Your task to perform on an android device: turn on showing notifications on the lock screen Image 0: 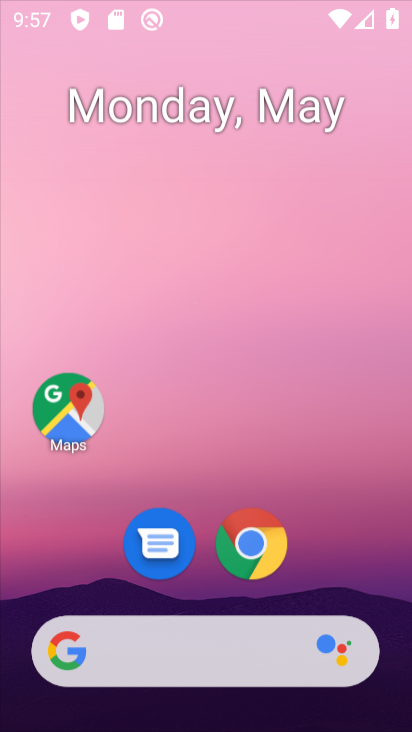
Step 0: click (141, 228)
Your task to perform on an android device: turn on showing notifications on the lock screen Image 1: 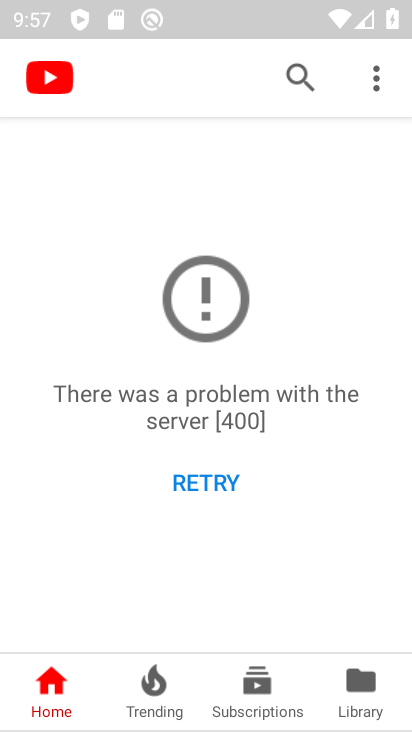
Step 1: press back button
Your task to perform on an android device: turn on showing notifications on the lock screen Image 2: 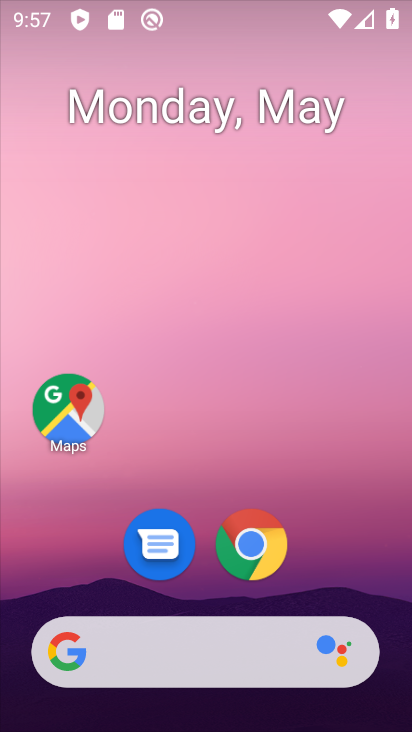
Step 2: drag from (300, 589) to (177, 158)
Your task to perform on an android device: turn on showing notifications on the lock screen Image 3: 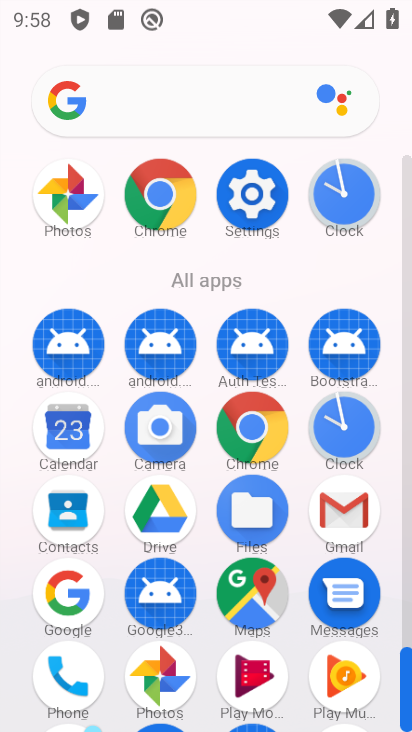
Step 3: click (338, 423)
Your task to perform on an android device: turn on showing notifications on the lock screen Image 4: 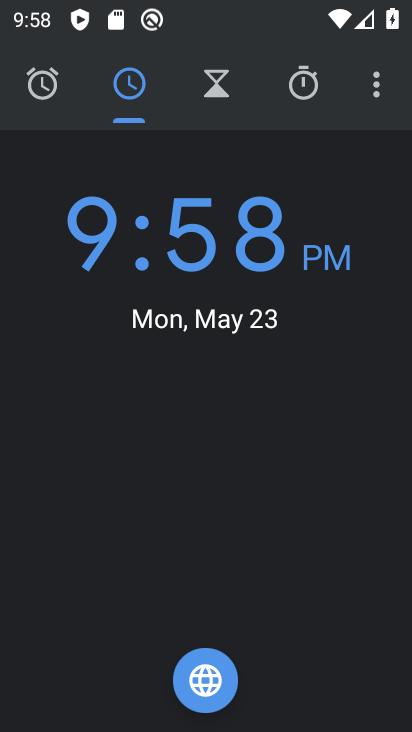
Step 4: press back button
Your task to perform on an android device: turn on showing notifications on the lock screen Image 5: 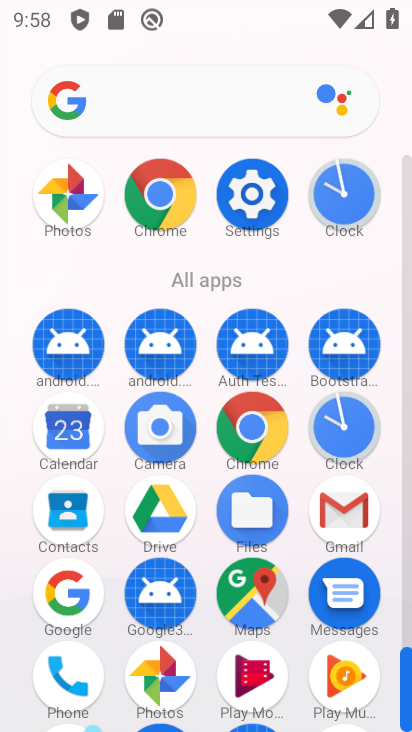
Step 5: click (342, 419)
Your task to perform on an android device: turn on showing notifications on the lock screen Image 6: 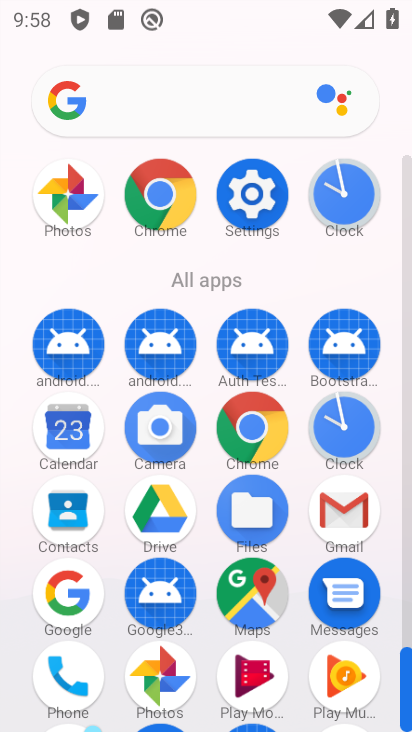
Step 6: click (342, 419)
Your task to perform on an android device: turn on showing notifications on the lock screen Image 7: 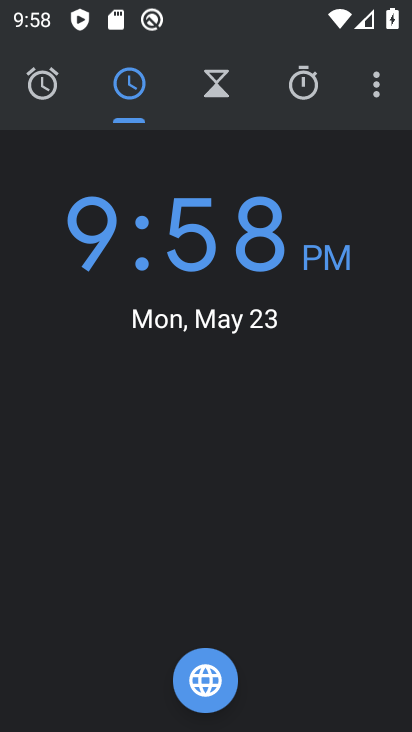
Step 7: press home button
Your task to perform on an android device: turn on showing notifications on the lock screen Image 8: 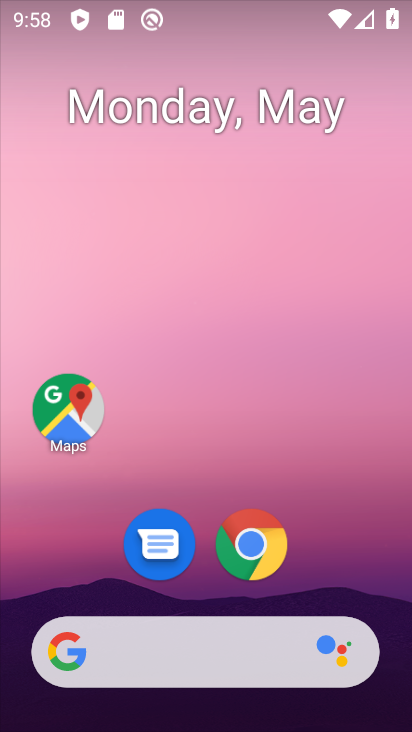
Step 8: drag from (185, 492) to (99, 156)
Your task to perform on an android device: turn on showing notifications on the lock screen Image 9: 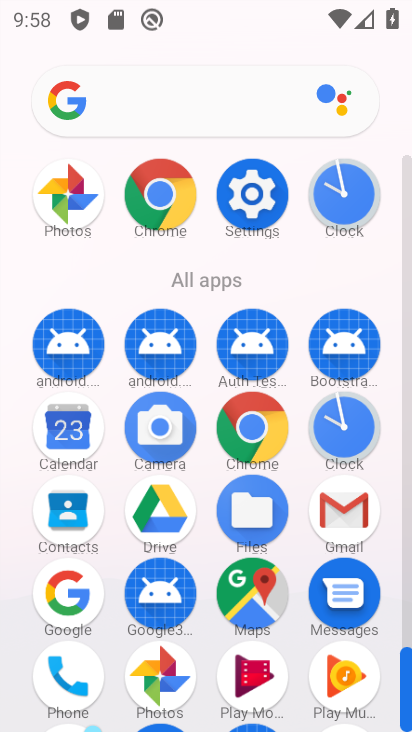
Step 9: click (243, 182)
Your task to perform on an android device: turn on showing notifications on the lock screen Image 10: 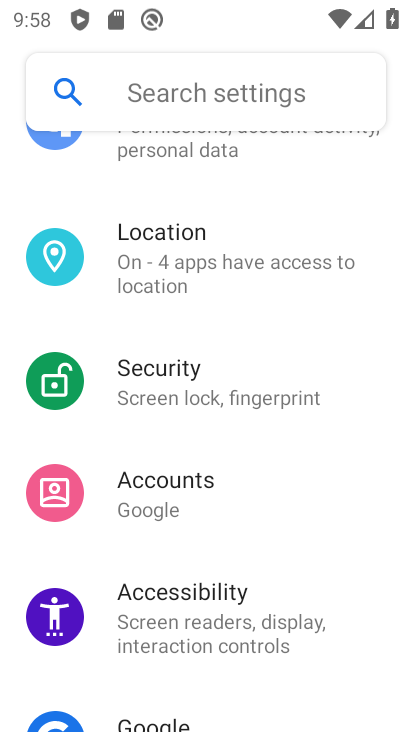
Step 10: drag from (167, 276) to (174, 495)
Your task to perform on an android device: turn on showing notifications on the lock screen Image 11: 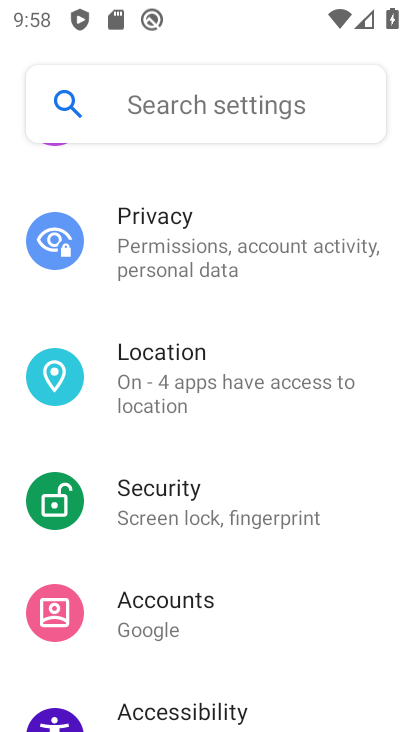
Step 11: drag from (142, 259) to (163, 500)
Your task to perform on an android device: turn on showing notifications on the lock screen Image 12: 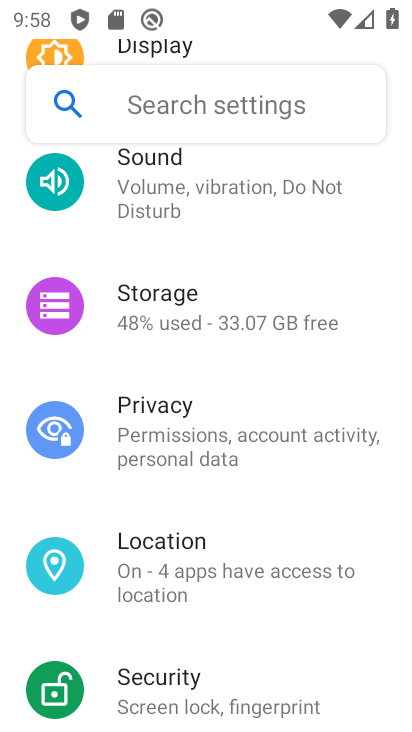
Step 12: drag from (162, 224) to (203, 503)
Your task to perform on an android device: turn on showing notifications on the lock screen Image 13: 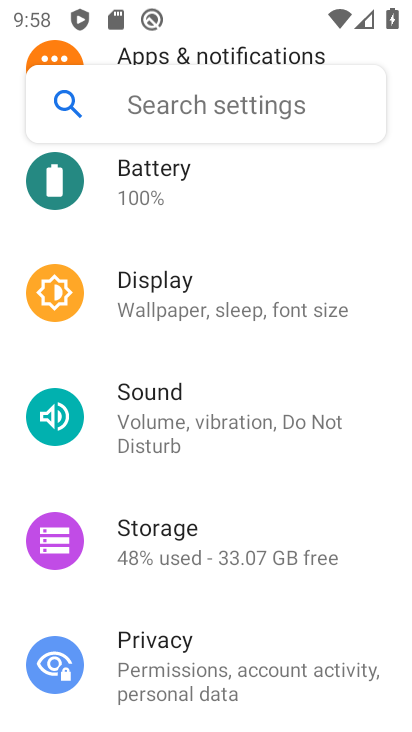
Step 13: drag from (205, 293) to (211, 351)
Your task to perform on an android device: turn on showing notifications on the lock screen Image 14: 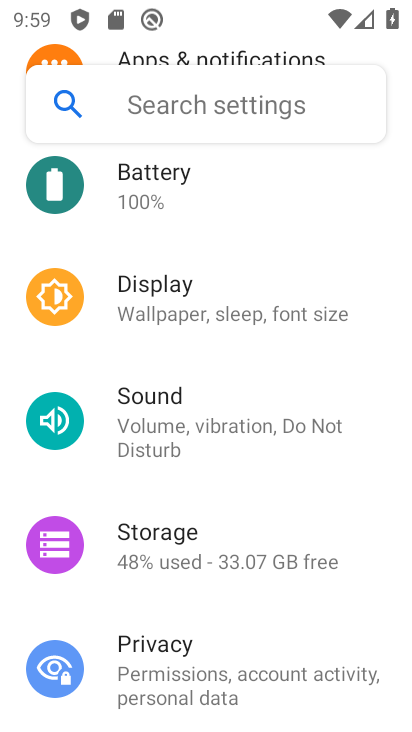
Step 14: drag from (171, 241) to (197, 429)
Your task to perform on an android device: turn on showing notifications on the lock screen Image 15: 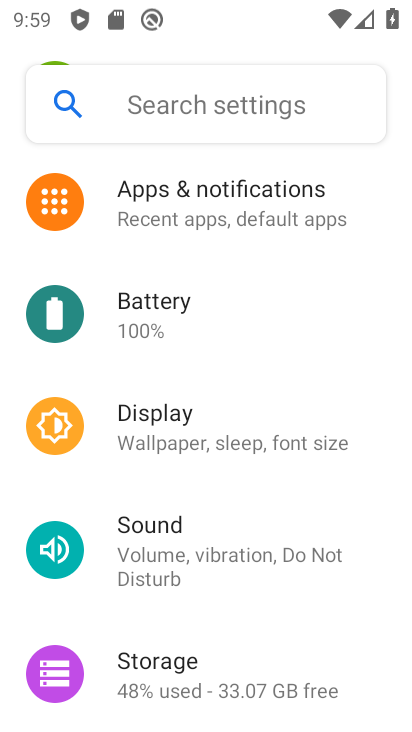
Step 15: click (175, 220)
Your task to perform on an android device: turn on showing notifications on the lock screen Image 16: 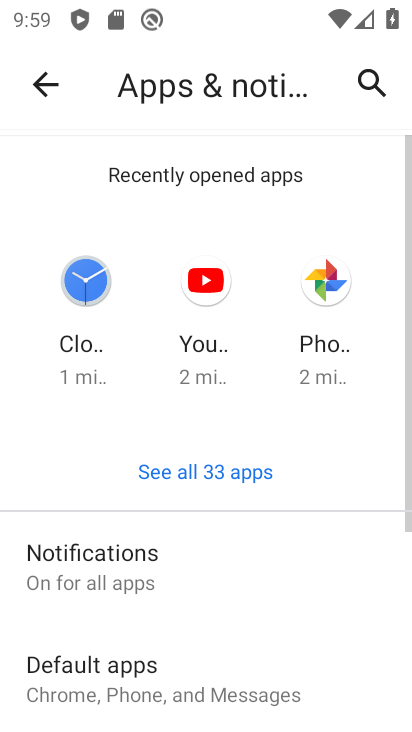
Step 16: click (75, 580)
Your task to perform on an android device: turn on showing notifications on the lock screen Image 17: 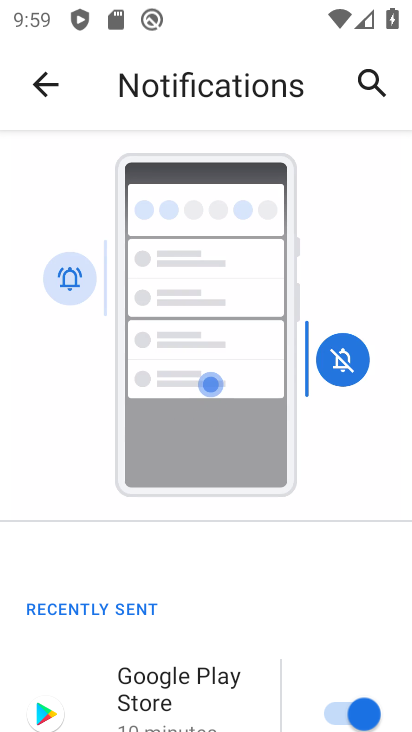
Step 17: drag from (234, 554) to (199, 147)
Your task to perform on an android device: turn on showing notifications on the lock screen Image 18: 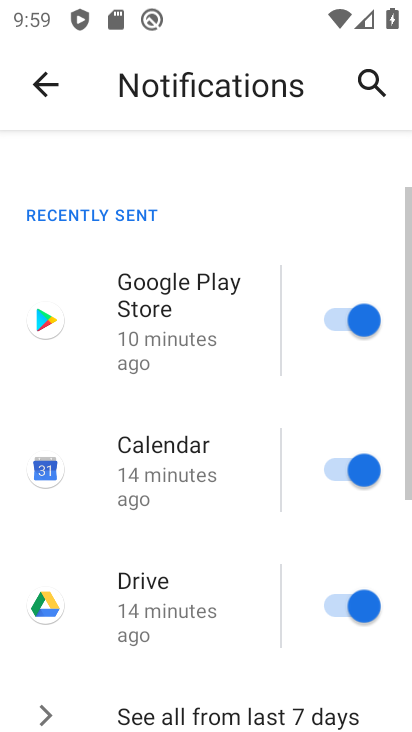
Step 18: drag from (263, 512) to (263, 97)
Your task to perform on an android device: turn on showing notifications on the lock screen Image 19: 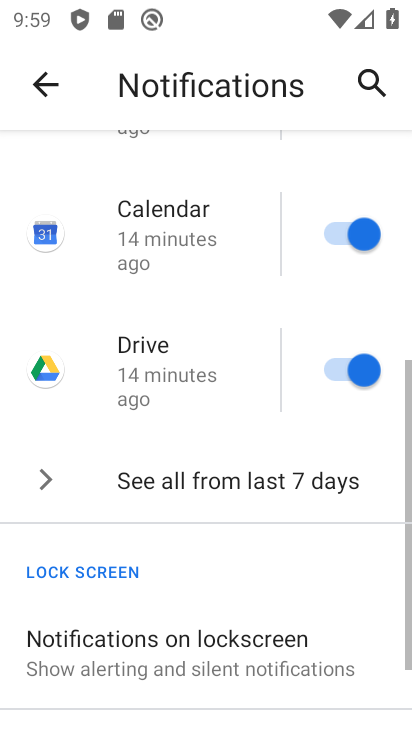
Step 19: drag from (238, 488) to (201, 83)
Your task to perform on an android device: turn on showing notifications on the lock screen Image 20: 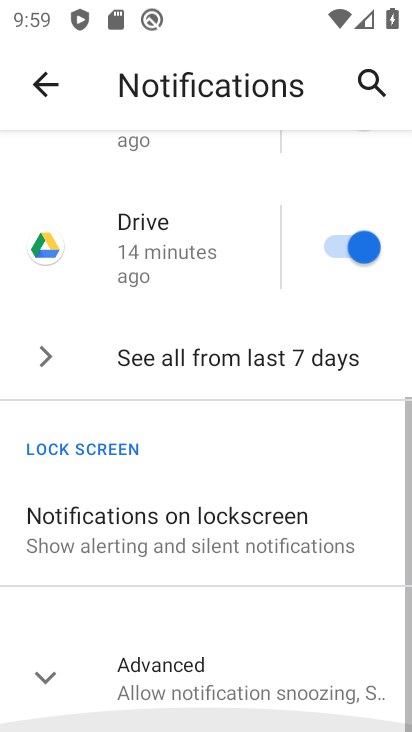
Step 20: drag from (195, 548) to (200, 198)
Your task to perform on an android device: turn on showing notifications on the lock screen Image 21: 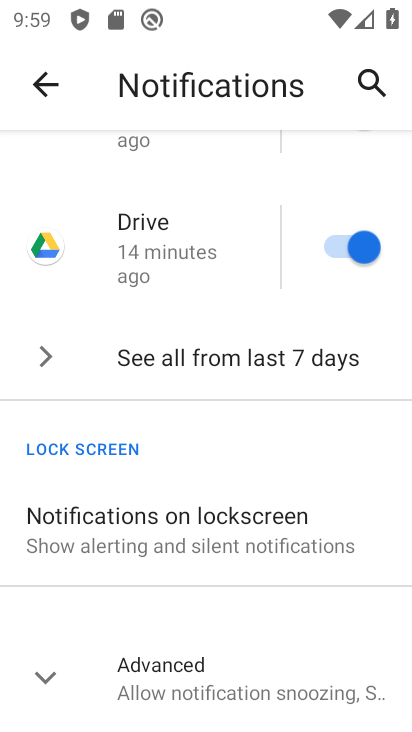
Step 21: click (181, 529)
Your task to perform on an android device: turn on showing notifications on the lock screen Image 22: 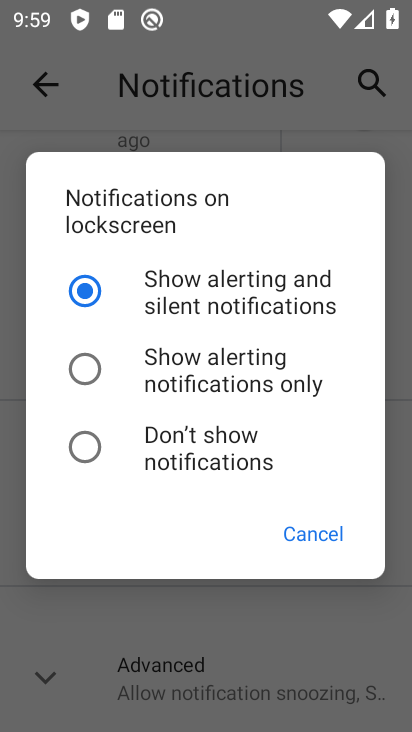
Step 22: click (311, 528)
Your task to perform on an android device: turn on showing notifications on the lock screen Image 23: 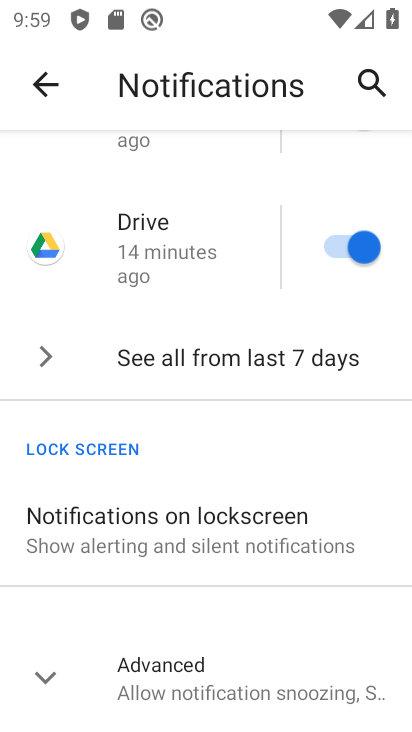
Step 23: task complete